Your task to perform on an android device: Do I have any events tomorrow? Image 0: 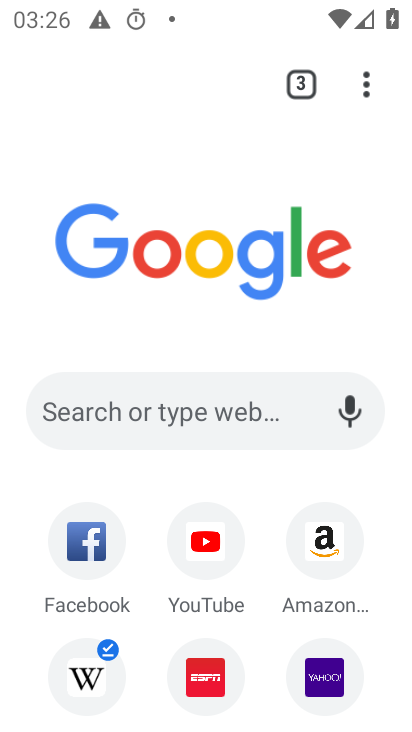
Step 0: press home button
Your task to perform on an android device: Do I have any events tomorrow? Image 1: 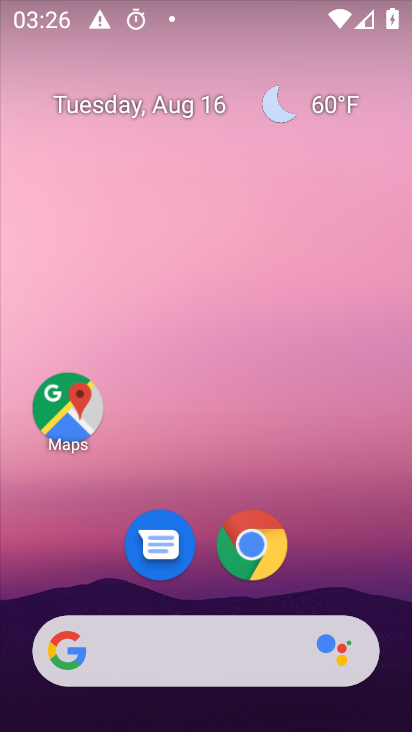
Step 1: drag from (175, 625) to (160, 178)
Your task to perform on an android device: Do I have any events tomorrow? Image 2: 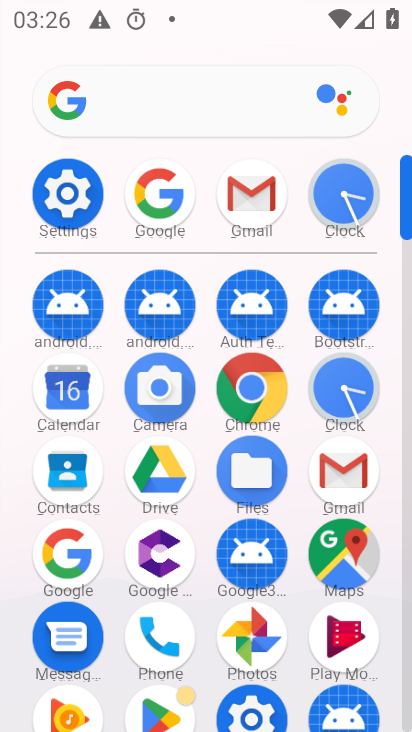
Step 2: click (70, 394)
Your task to perform on an android device: Do I have any events tomorrow? Image 3: 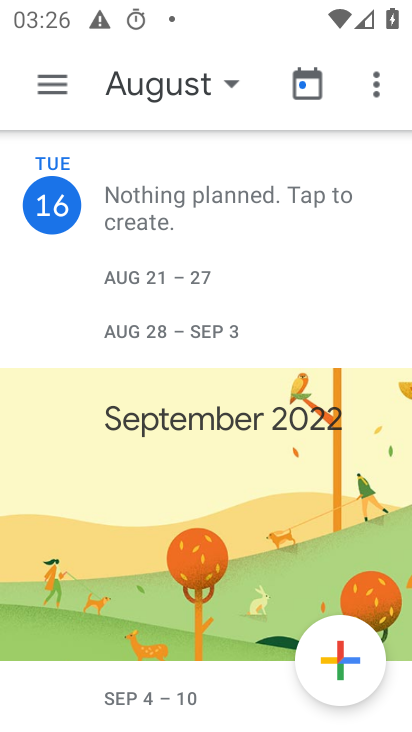
Step 3: click (154, 87)
Your task to perform on an android device: Do I have any events tomorrow? Image 4: 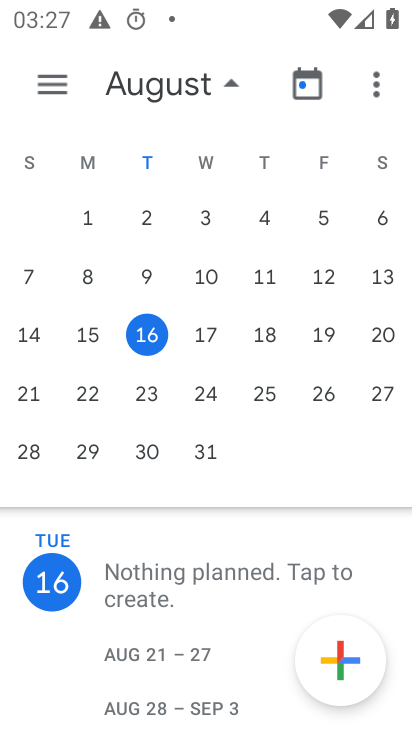
Step 4: click (209, 332)
Your task to perform on an android device: Do I have any events tomorrow? Image 5: 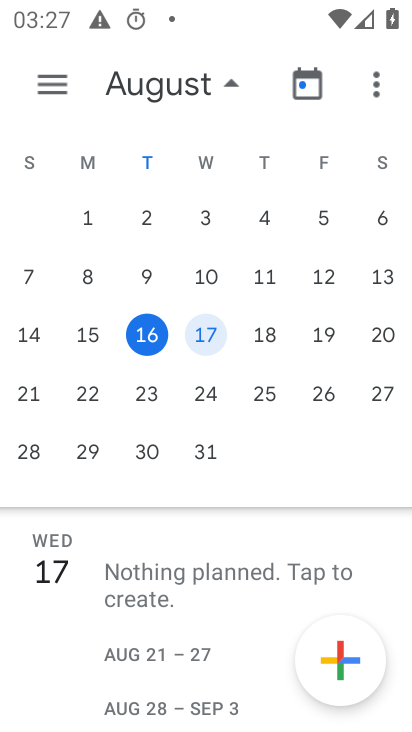
Step 5: task complete